Your task to perform on an android device: open the mobile data screen to see how much data has been used Image 0: 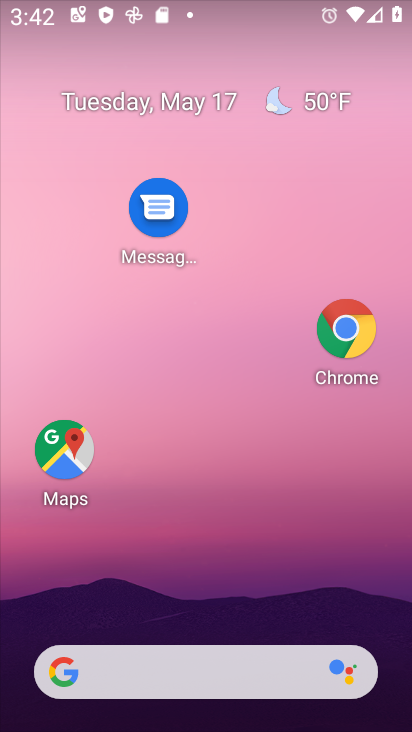
Step 0: drag from (166, 573) to (256, 289)
Your task to perform on an android device: open the mobile data screen to see how much data has been used Image 1: 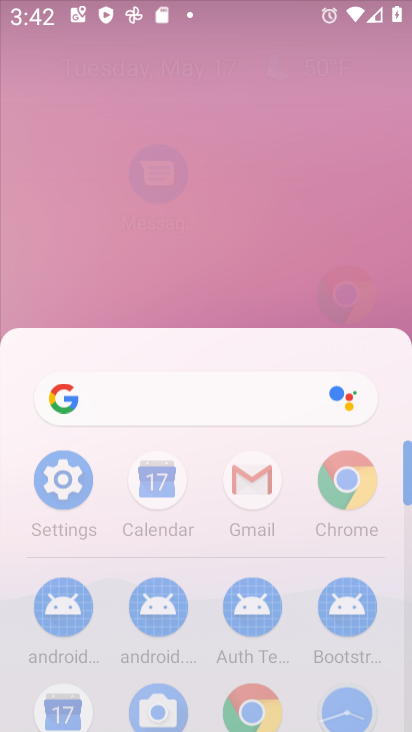
Step 1: click (256, 289)
Your task to perform on an android device: open the mobile data screen to see how much data has been used Image 2: 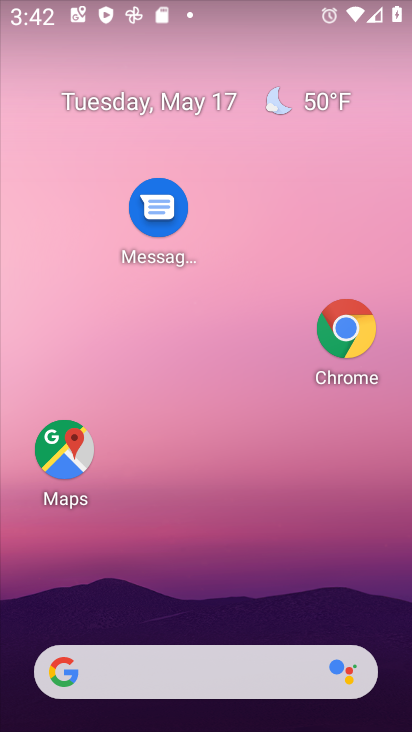
Step 2: drag from (185, 617) to (107, 15)
Your task to perform on an android device: open the mobile data screen to see how much data has been used Image 3: 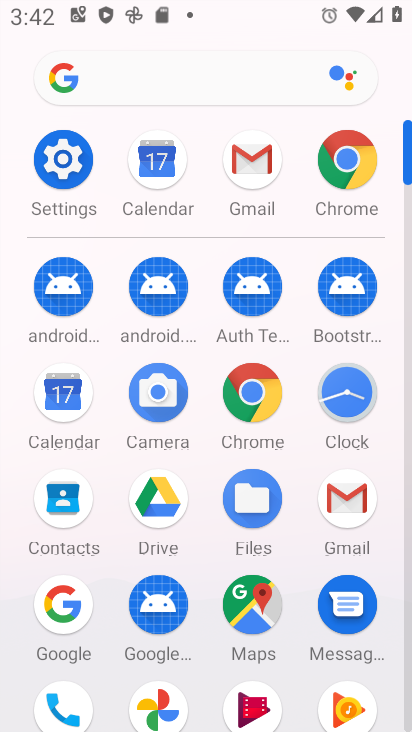
Step 3: click (64, 131)
Your task to perform on an android device: open the mobile data screen to see how much data has been used Image 4: 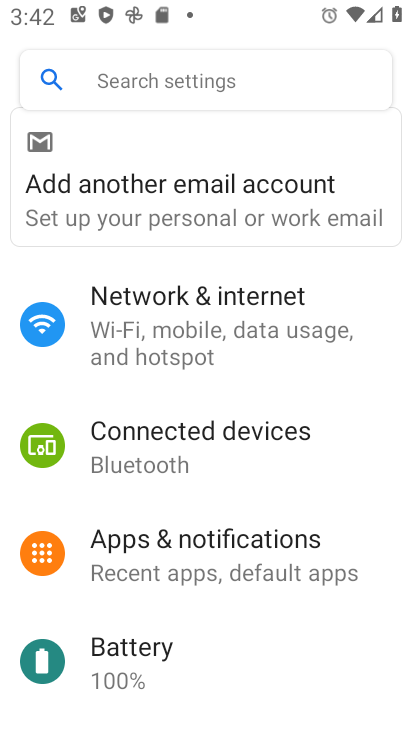
Step 4: click (183, 290)
Your task to perform on an android device: open the mobile data screen to see how much data has been used Image 5: 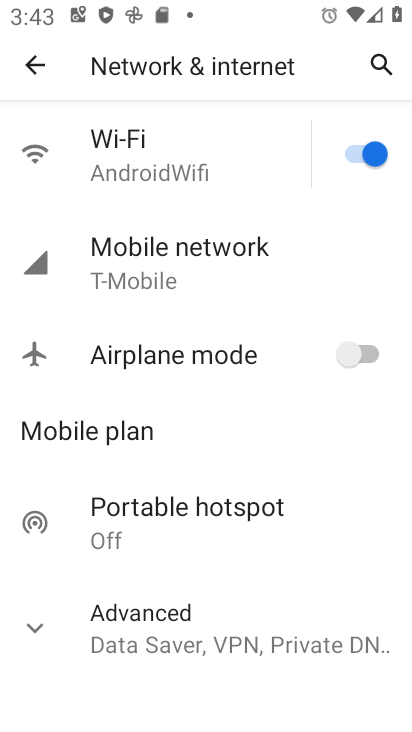
Step 5: click (192, 285)
Your task to perform on an android device: open the mobile data screen to see how much data has been used Image 6: 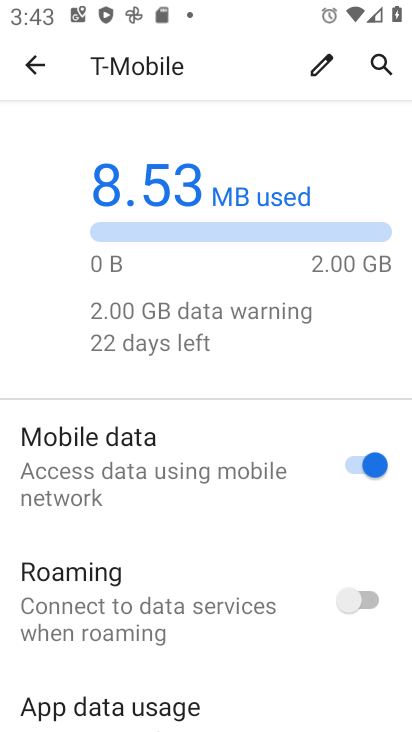
Step 6: task complete